Your task to perform on an android device: Show me popular videos on Youtube Image 0: 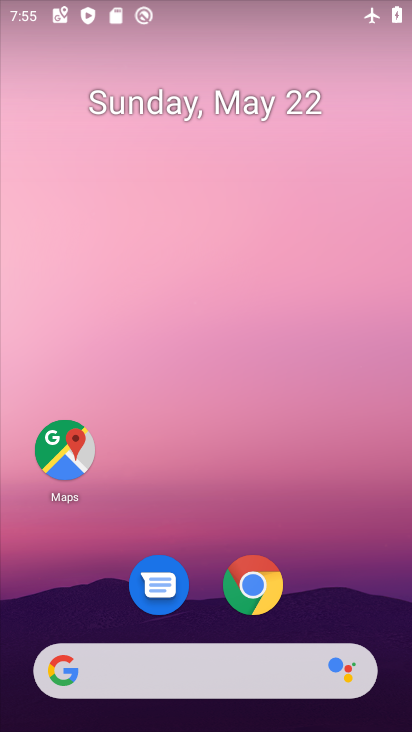
Step 0: drag from (244, 507) to (270, 23)
Your task to perform on an android device: Show me popular videos on Youtube Image 1: 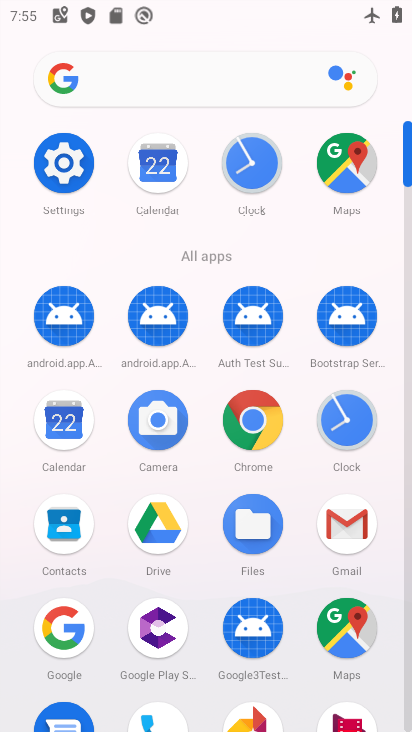
Step 1: drag from (202, 374) to (228, 75)
Your task to perform on an android device: Show me popular videos on Youtube Image 2: 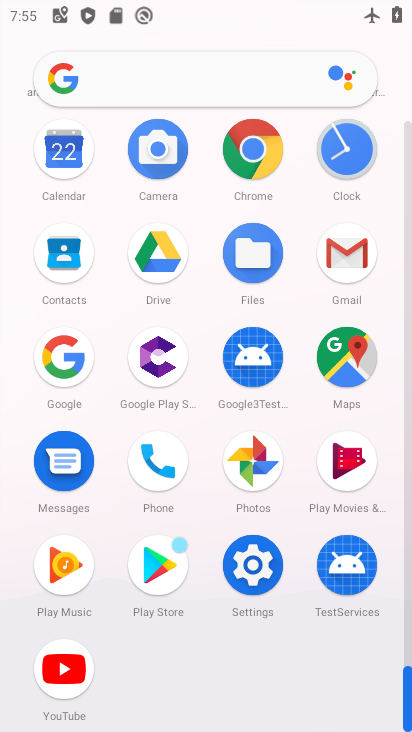
Step 2: click (62, 666)
Your task to perform on an android device: Show me popular videos on Youtube Image 3: 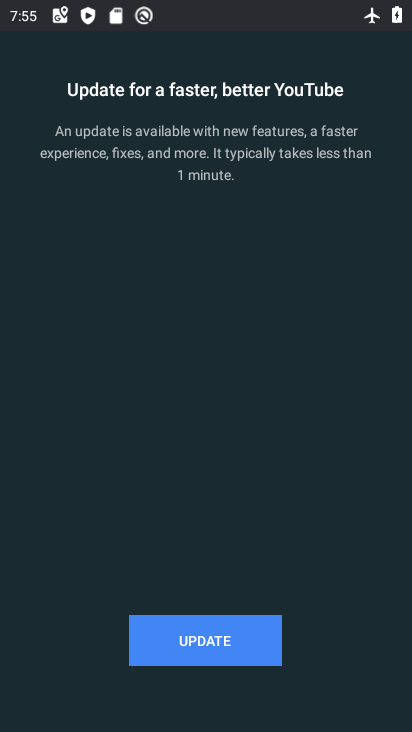
Step 3: click (209, 635)
Your task to perform on an android device: Show me popular videos on Youtube Image 4: 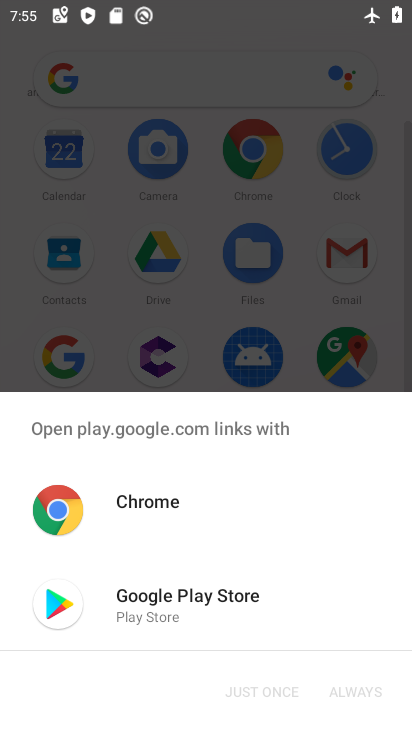
Step 4: click (205, 601)
Your task to perform on an android device: Show me popular videos on Youtube Image 5: 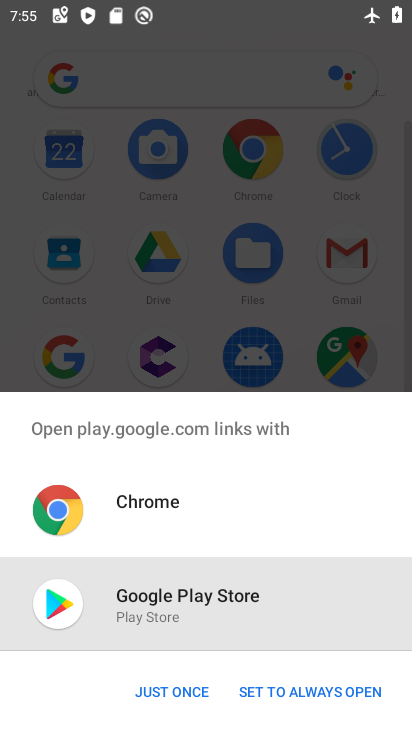
Step 5: click (178, 683)
Your task to perform on an android device: Show me popular videos on Youtube Image 6: 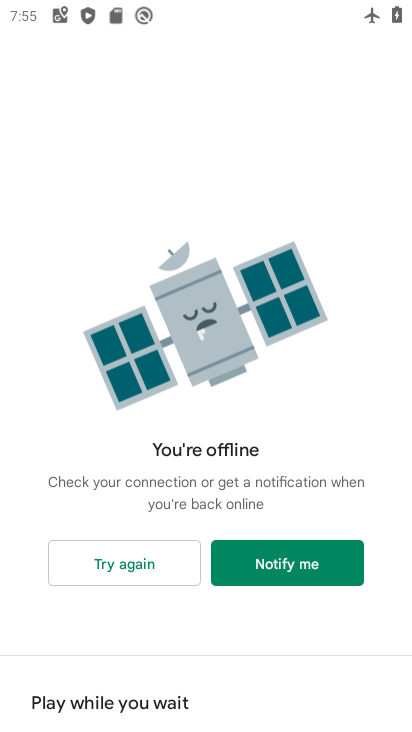
Step 6: click (169, 566)
Your task to perform on an android device: Show me popular videos on Youtube Image 7: 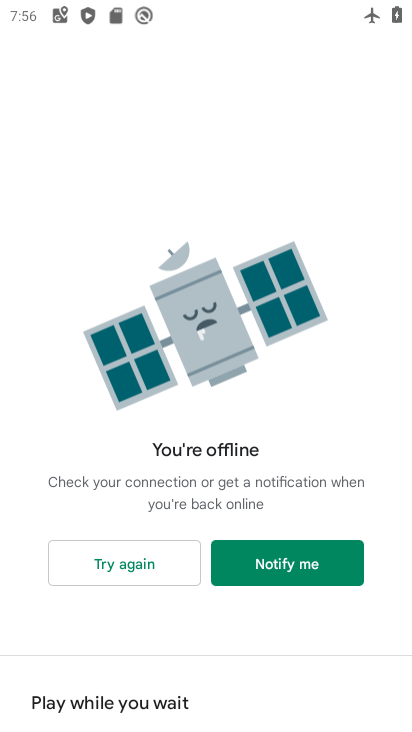
Step 7: task complete